Your task to perform on an android device: Show me recent news Image 0: 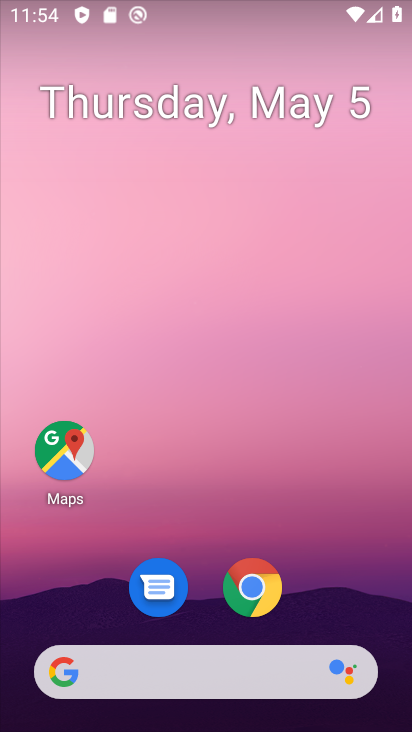
Step 0: drag from (2, 286) to (348, 294)
Your task to perform on an android device: Show me recent news Image 1: 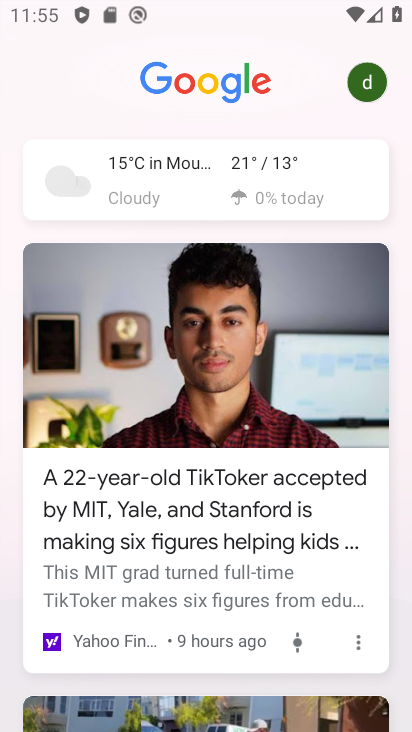
Step 1: task complete